Your task to perform on an android device: Open Chrome and go to settings Image 0: 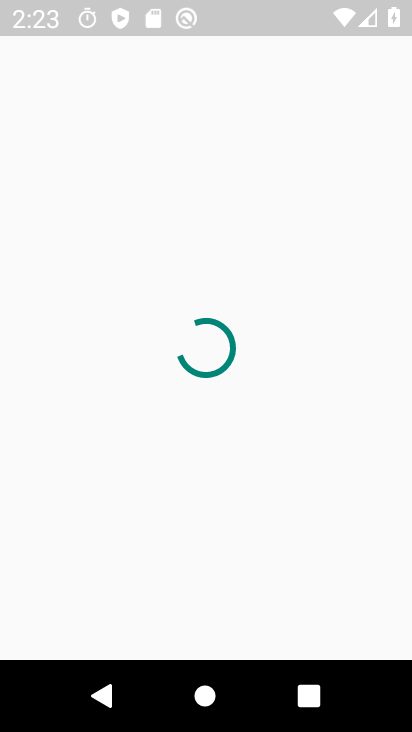
Step 0: press home button
Your task to perform on an android device: Open Chrome and go to settings Image 1: 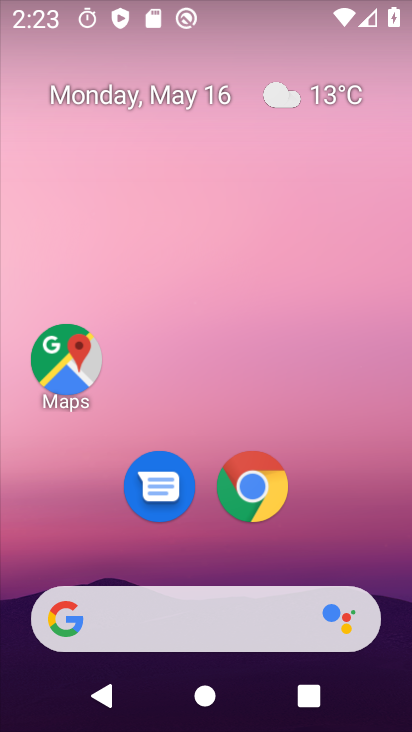
Step 1: drag from (290, 549) to (189, 1)
Your task to perform on an android device: Open Chrome and go to settings Image 2: 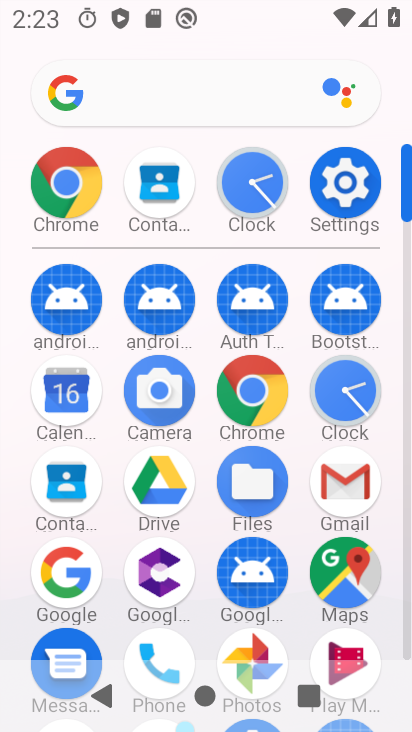
Step 2: click (49, 196)
Your task to perform on an android device: Open Chrome and go to settings Image 3: 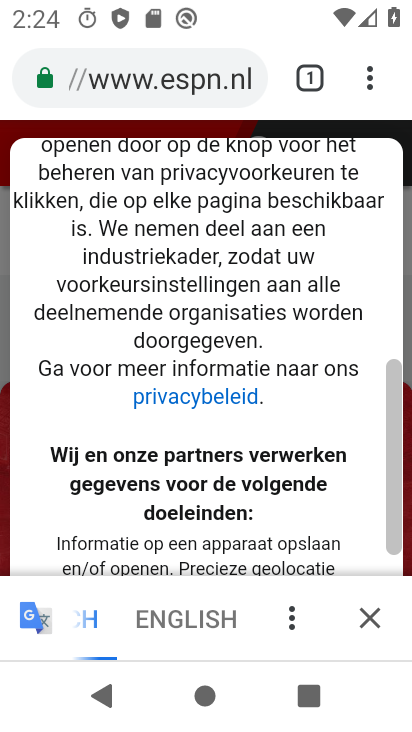
Step 3: task complete